Your task to perform on an android device: Open Google Maps Image 0: 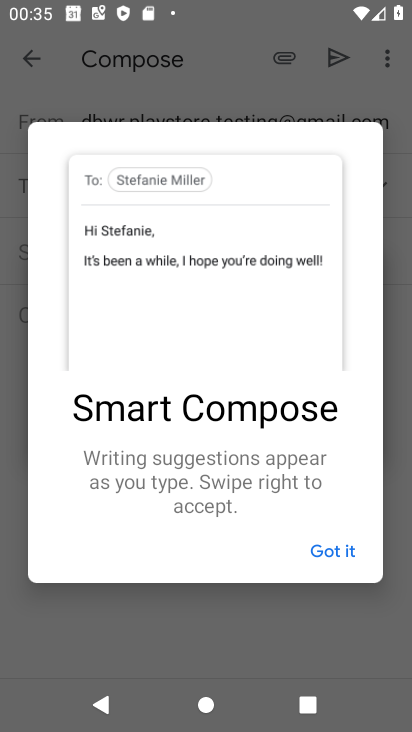
Step 0: press home button
Your task to perform on an android device: Open Google Maps Image 1: 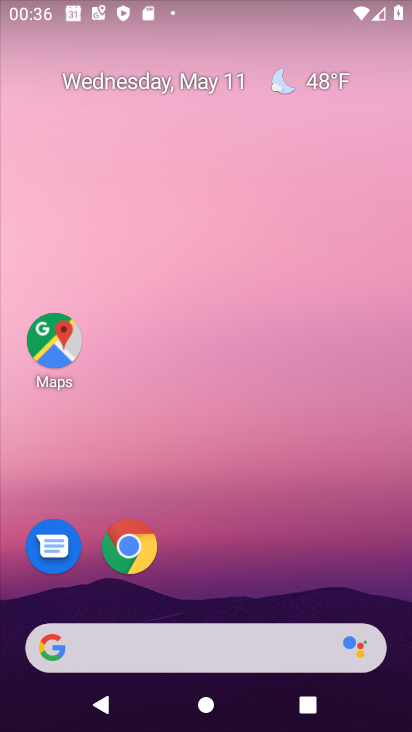
Step 1: click (63, 359)
Your task to perform on an android device: Open Google Maps Image 2: 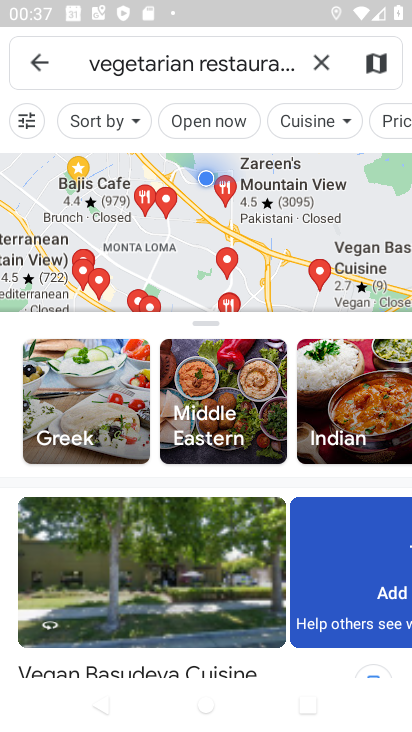
Step 2: task complete